Your task to perform on an android device: Open display settings Image 0: 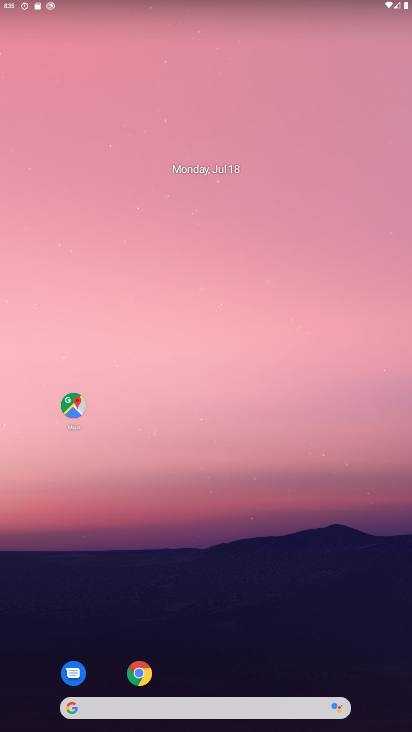
Step 0: drag from (176, 672) to (177, 254)
Your task to perform on an android device: Open display settings Image 1: 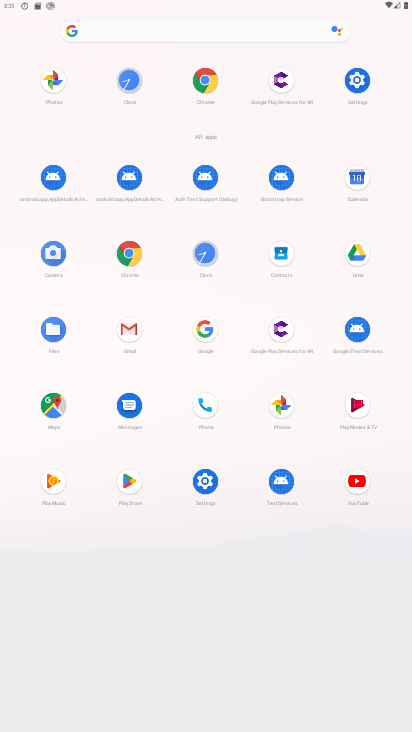
Step 1: click (360, 83)
Your task to perform on an android device: Open display settings Image 2: 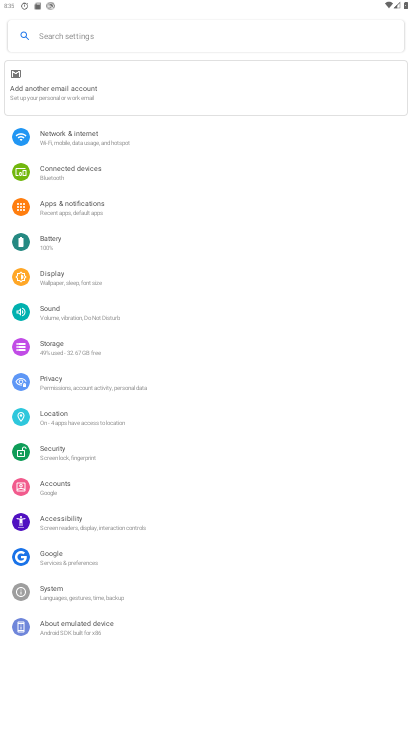
Step 2: click (63, 279)
Your task to perform on an android device: Open display settings Image 3: 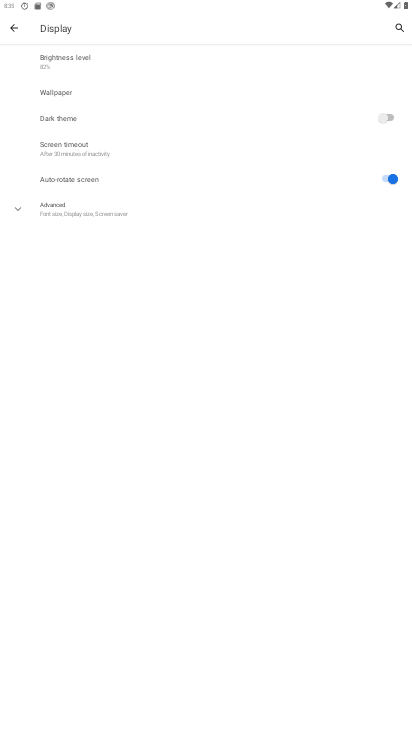
Step 3: task complete